Your task to perform on an android device: open app "ZOOM Cloud Meetings" Image 0: 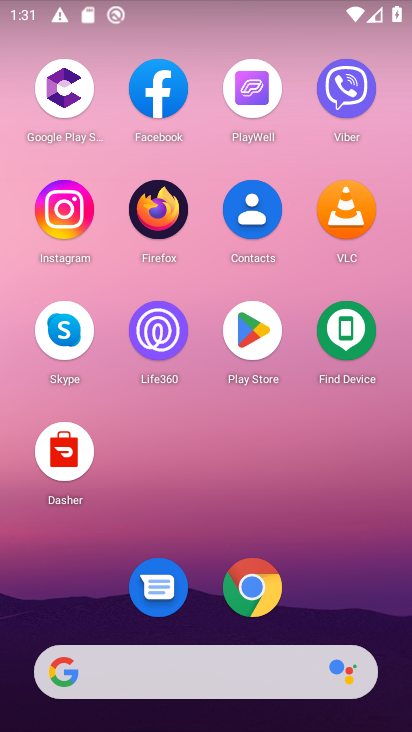
Step 0: press home button
Your task to perform on an android device: open app "ZOOM Cloud Meetings" Image 1: 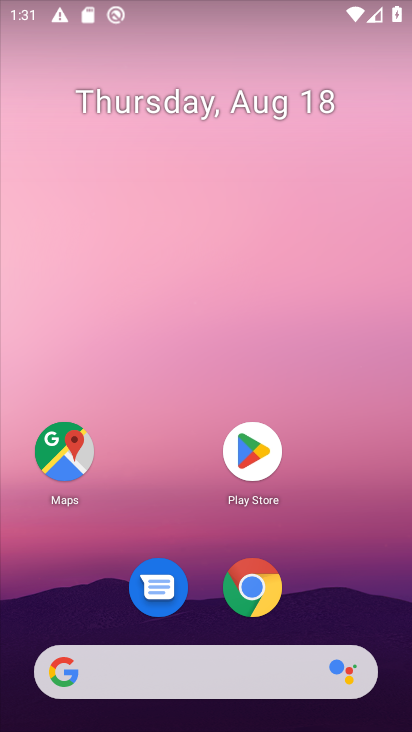
Step 1: click (246, 459)
Your task to perform on an android device: open app "ZOOM Cloud Meetings" Image 2: 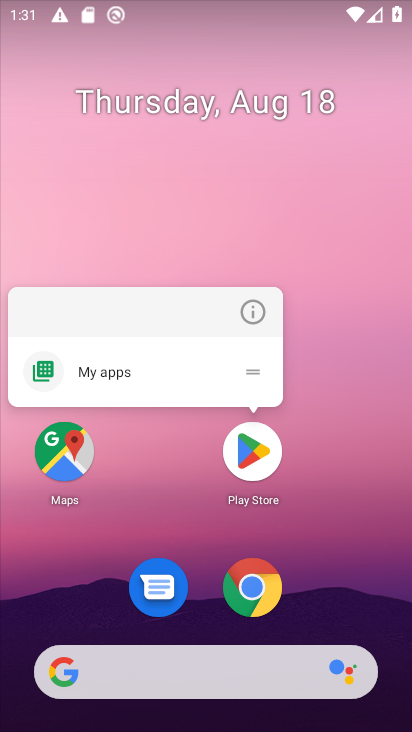
Step 2: click (246, 459)
Your task to perform on an android device: open app "ZOOM Cloud Meetings" Image 3: 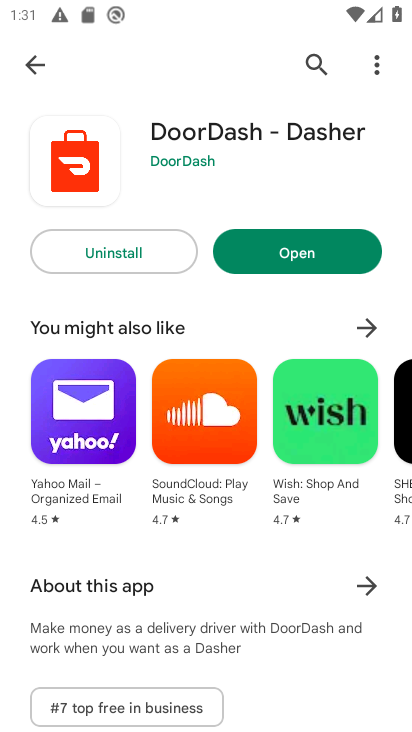
Step 3: click (313, 60)
Your task to perform on an android device: open app "ZOOM Cloud Meetings" Image 4: 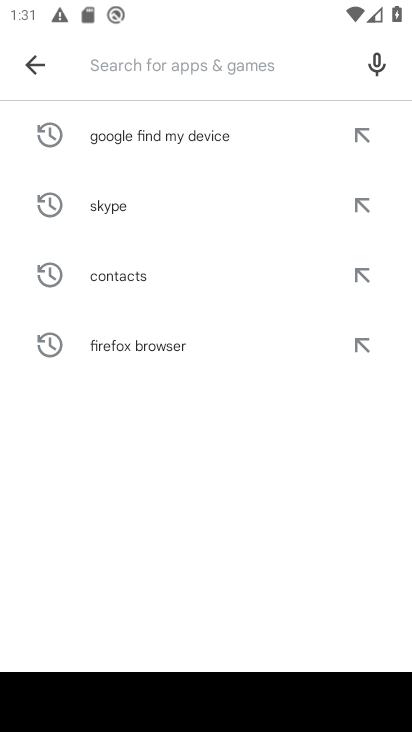
Step 4: type "ZOOM Cloud Meetings"
Your task to perform on an android device: open app "ZOOM Cloud Meetings" Image 5: 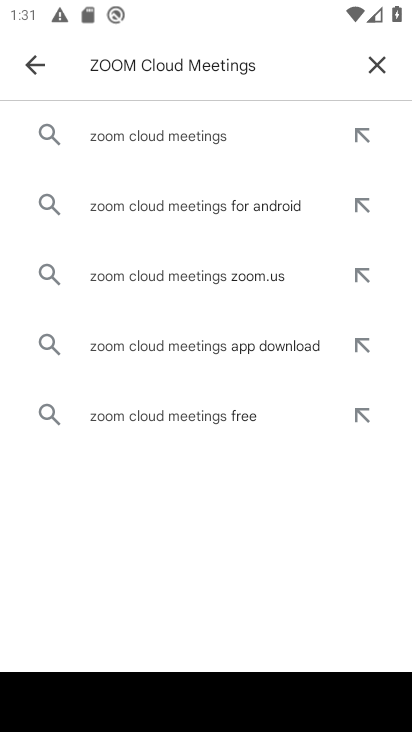
Step 5: click (188, 134)
Your task to perform on an android device: open app "ZOOM Cloud Meetings" Image 6: 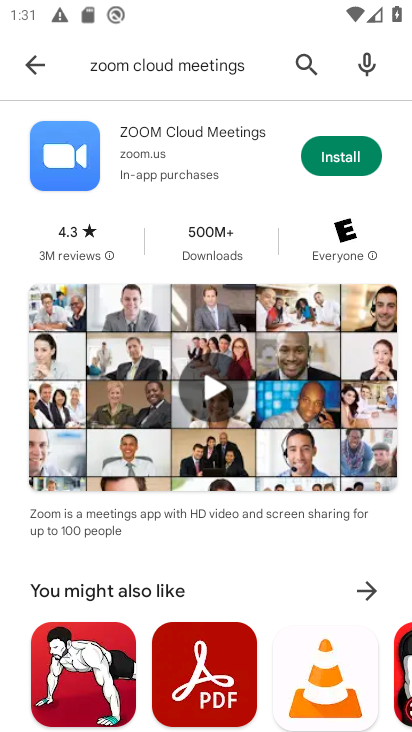
Step 6: task complete